Your task to perform on an android device: stop showing notifications on the lock screen Image 0: 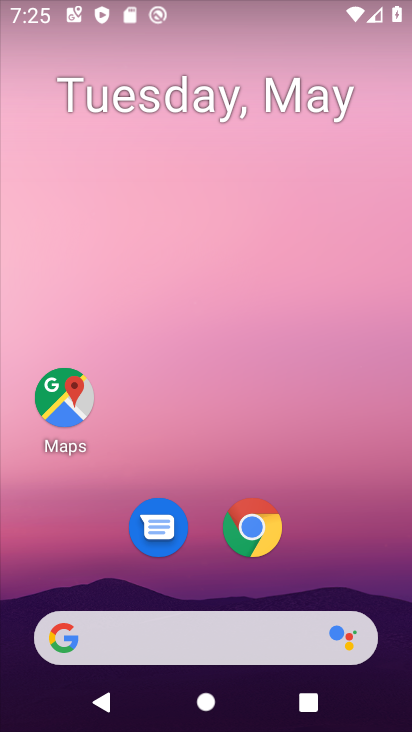
Step 0: drag from (319, 557) to (273, 142)
Your task to perform on an android device: stop showing notifications on the lock screen Image 1: 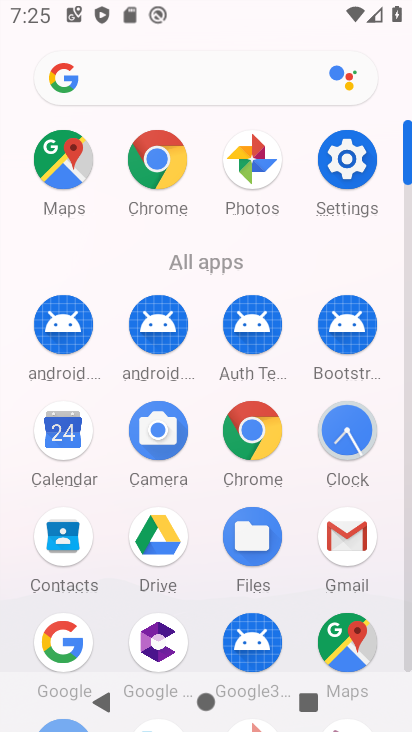
Step 1: click (347, 158)
Your task to perform on an android device: stop showing notifications on the lock screen Image 2: 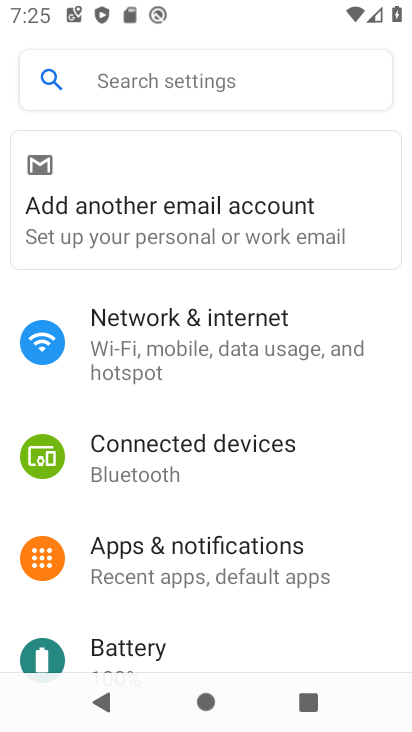
Step 2: click (208, 574)
Your task to perform on an android device: stop showing notifications on the lock screen Image 3: 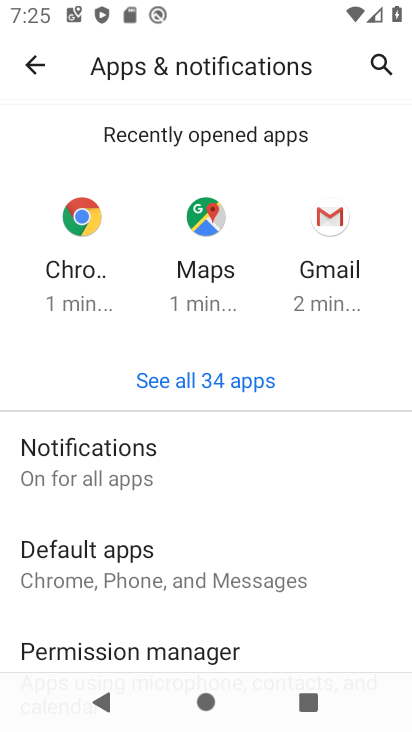
Step 3: click (108, 451)
Your task to perform on an android device: stop showing notifications on the lock screen Image 4: 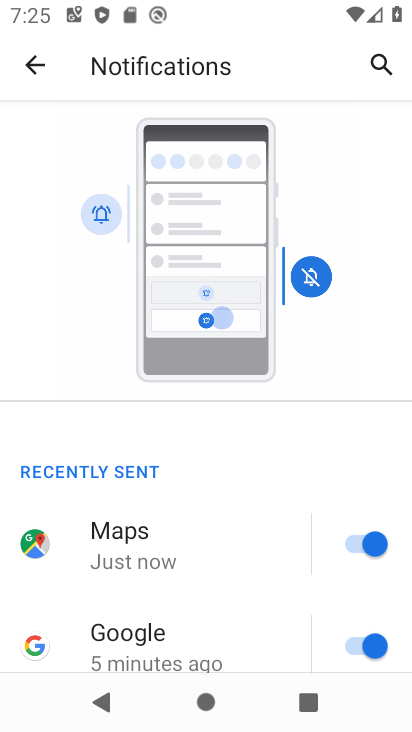
Step 4: drag from (199, 600) to (278, 471)
Your task to perform on an android device: stop showing notifications on the lock screen Image 5: 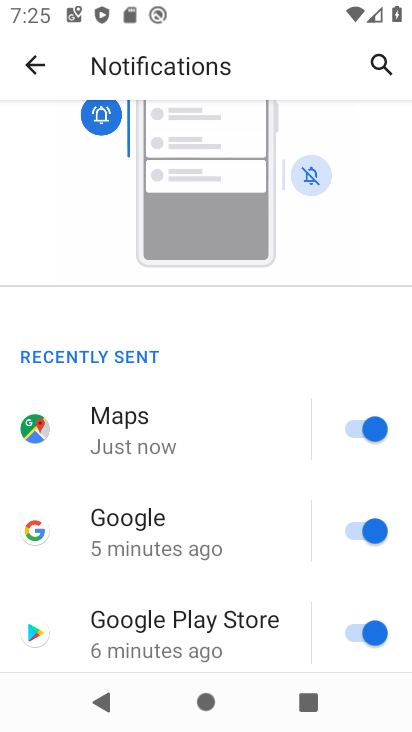
Step 5: drag from (185, 576) to (252, 464)
Your task to perform on an android device: stop showing notifications on the lock screen Image 6: 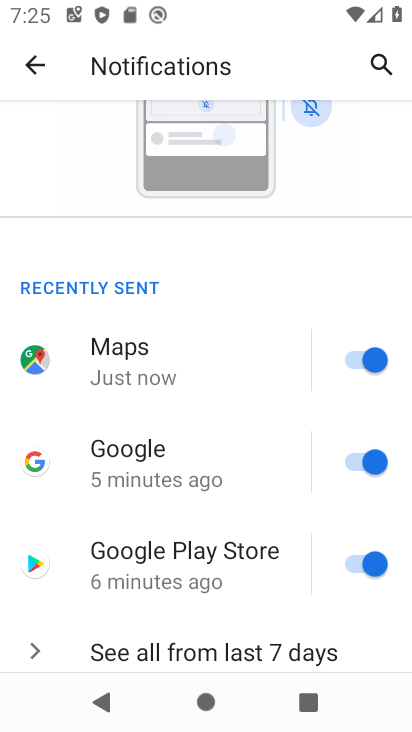
Step 6: drag from (169, 605) to (216, 467)
Your task to perform on an android device: stop showing notifications on the lock screen Image 7: 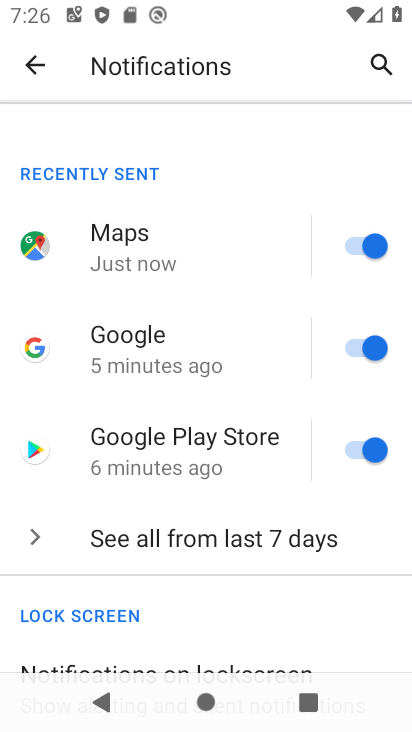
Step 7: drag from (176, 586) to (249, 423)
Your task to perform on an android device: stop showing notifications on the lock screen Image 8: 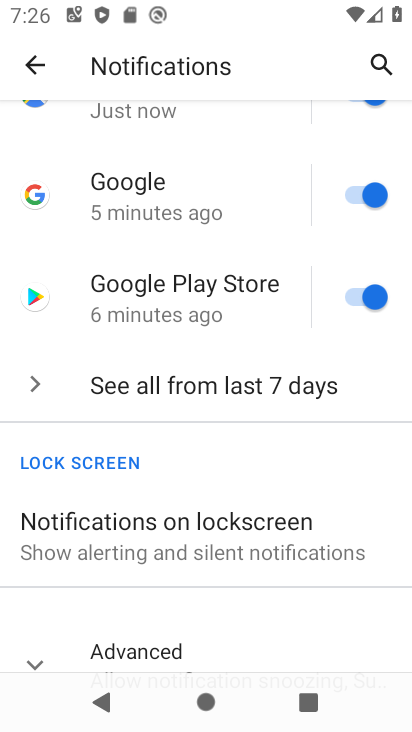
Step 8: click (200, 525)
Your task to perform on an android device: stop showing notifications on the lock screen Image 9: 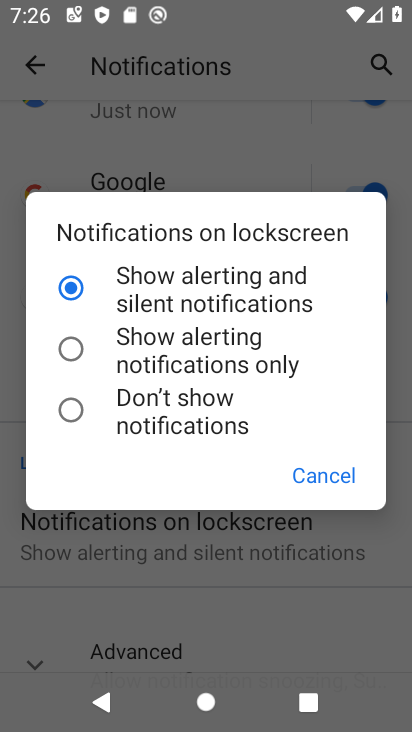
Step 9: click (69, 402)
Your task to perform on an android device: stop showing notifications on the lock screen Image 10: 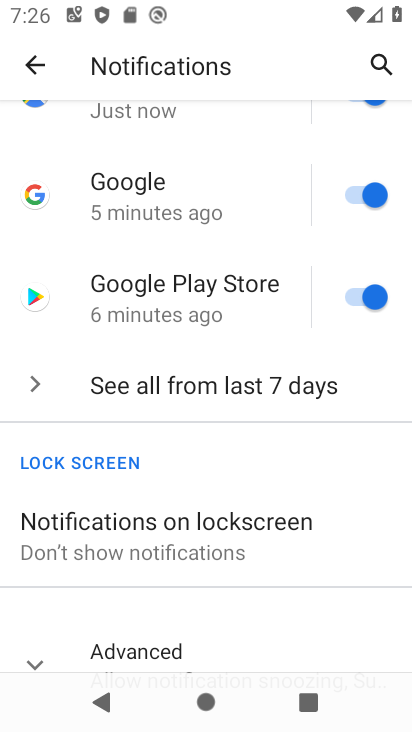
Step 10: task complete